Your task to perform on an android device: Play some music on YouTube Image 0: 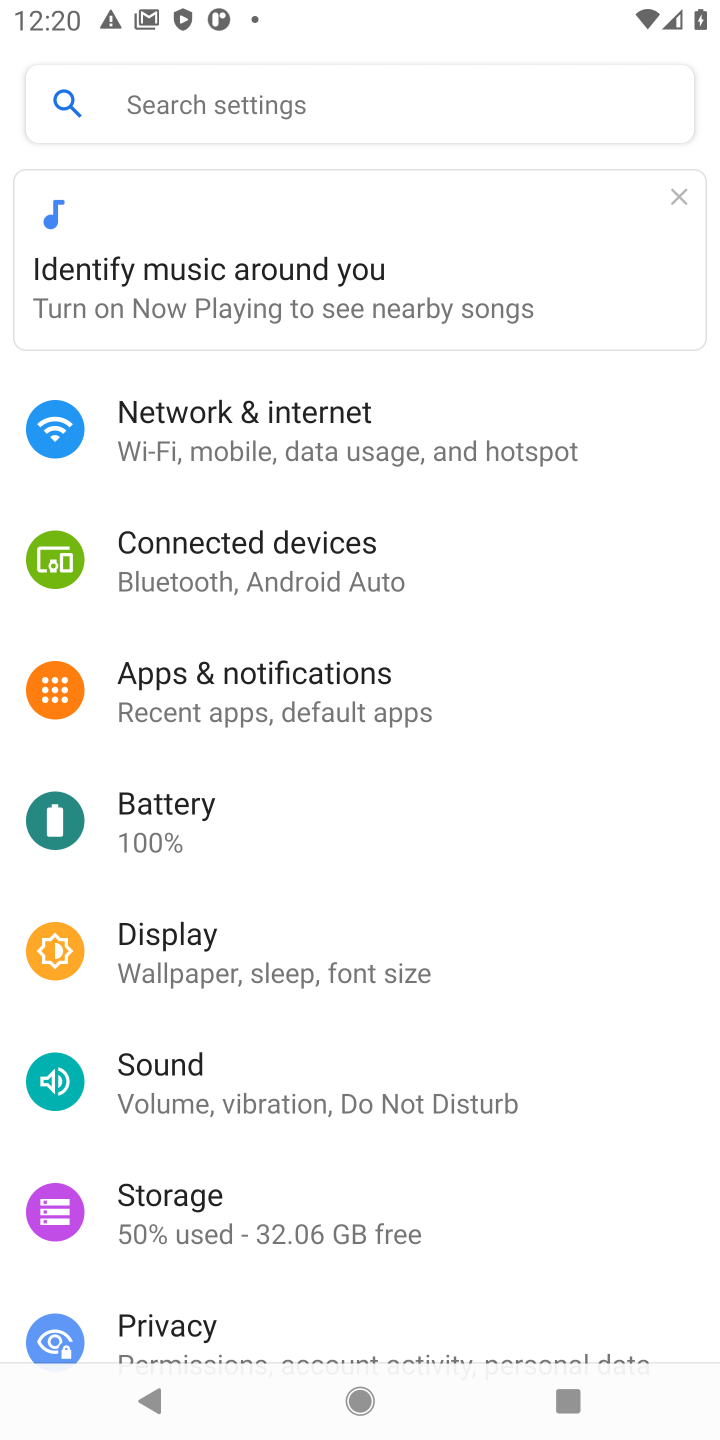
Step 0: press home button
Your task to perform on an android device: Play some music on YouTube Image 1: 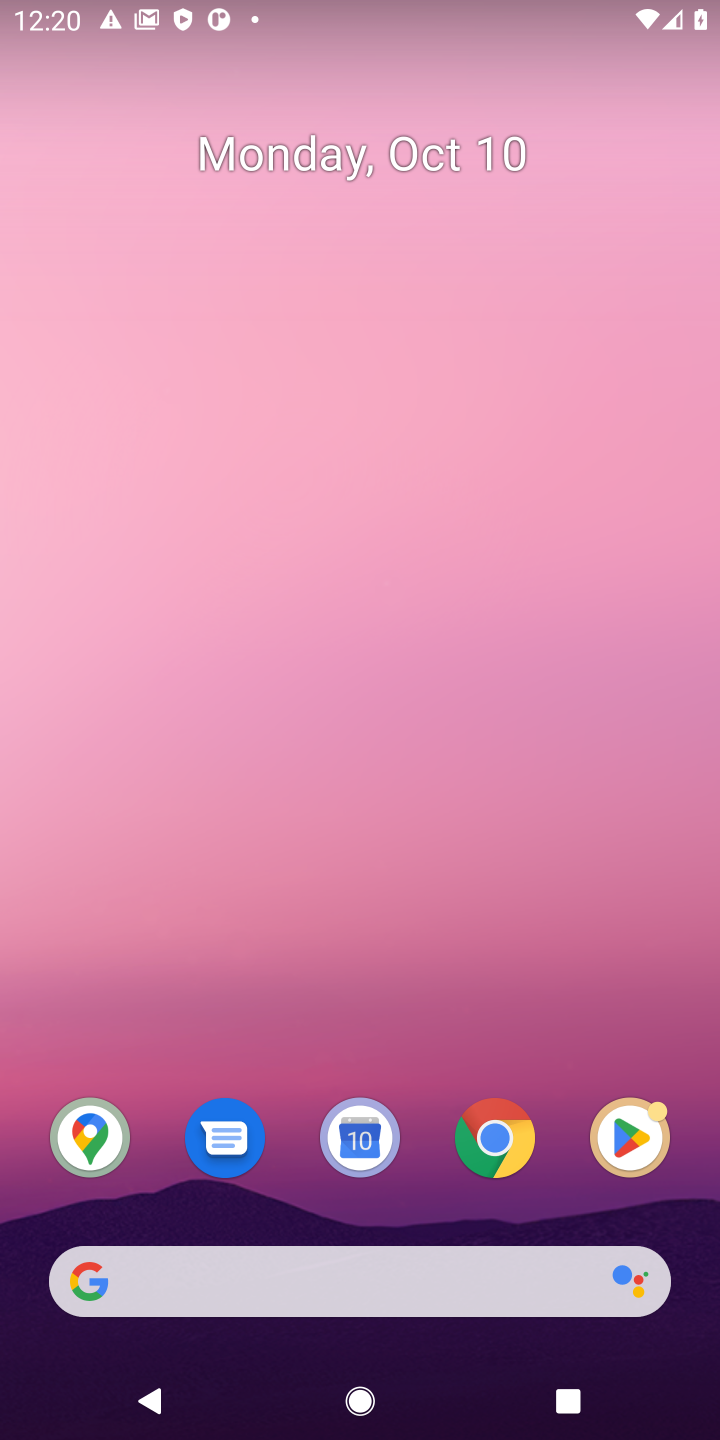
Step 1: drag from (364, 1271) to (333, 295)
Your task to perform on an android device: Play some music on YouTube Image 2: 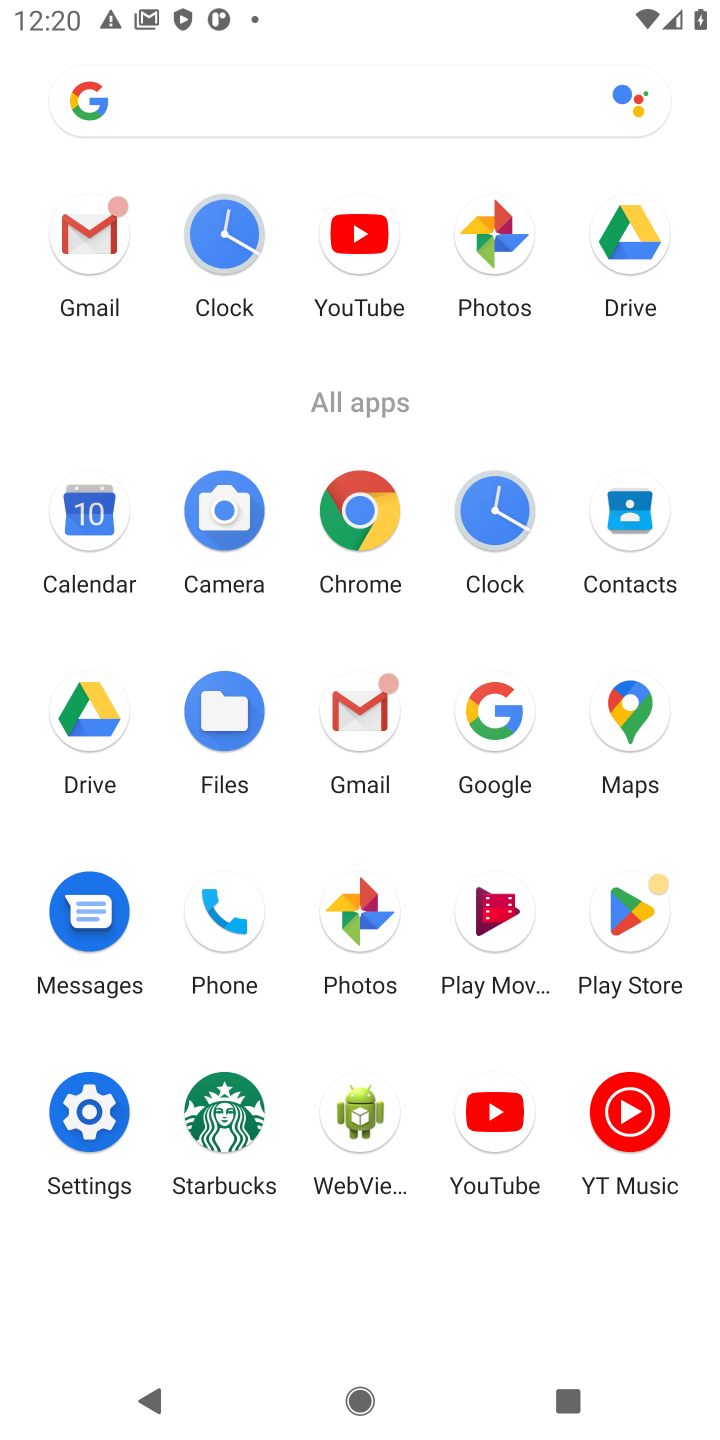
Step 2: click (503, 1131)
Your task to perform on an android device: Play some music on YouTube Image 3: 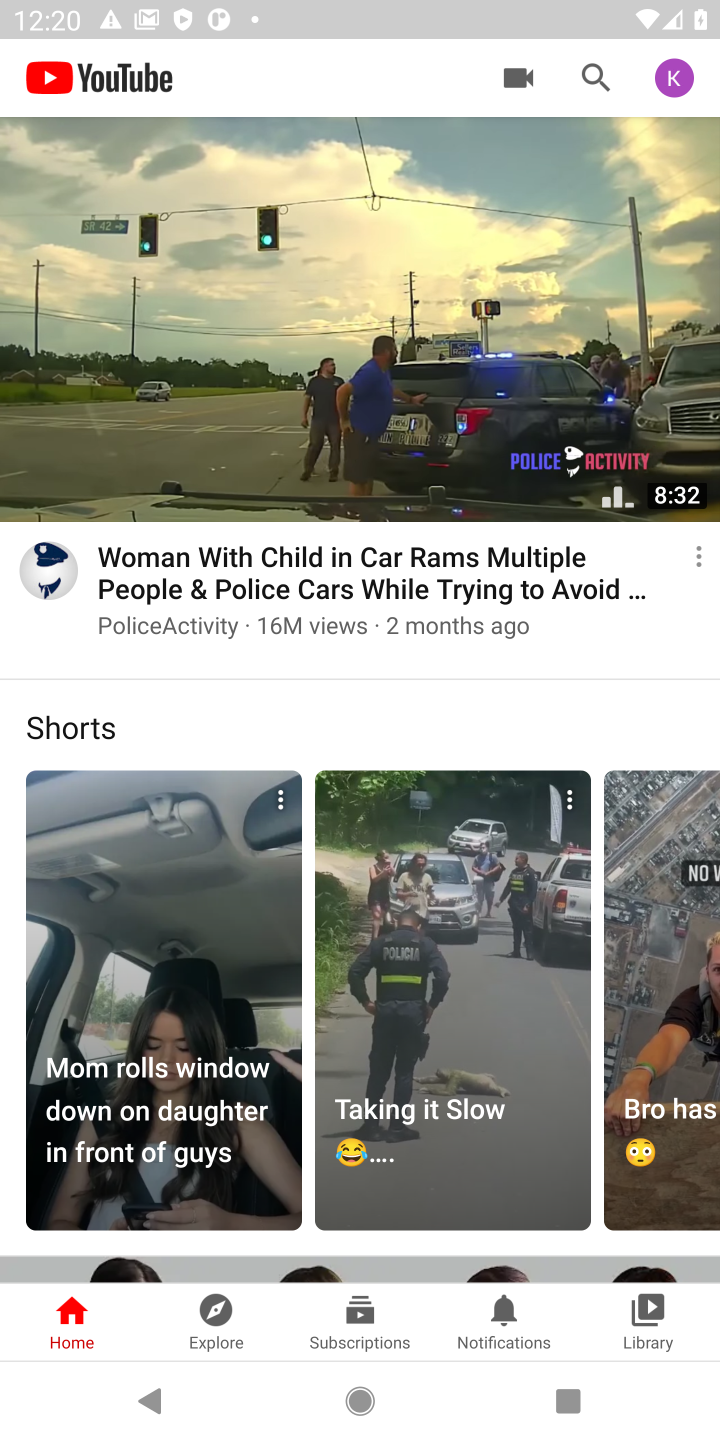
Step 3: click (602, 61)
Your task to perform on an android device: Play some music on YouTube Image 4: 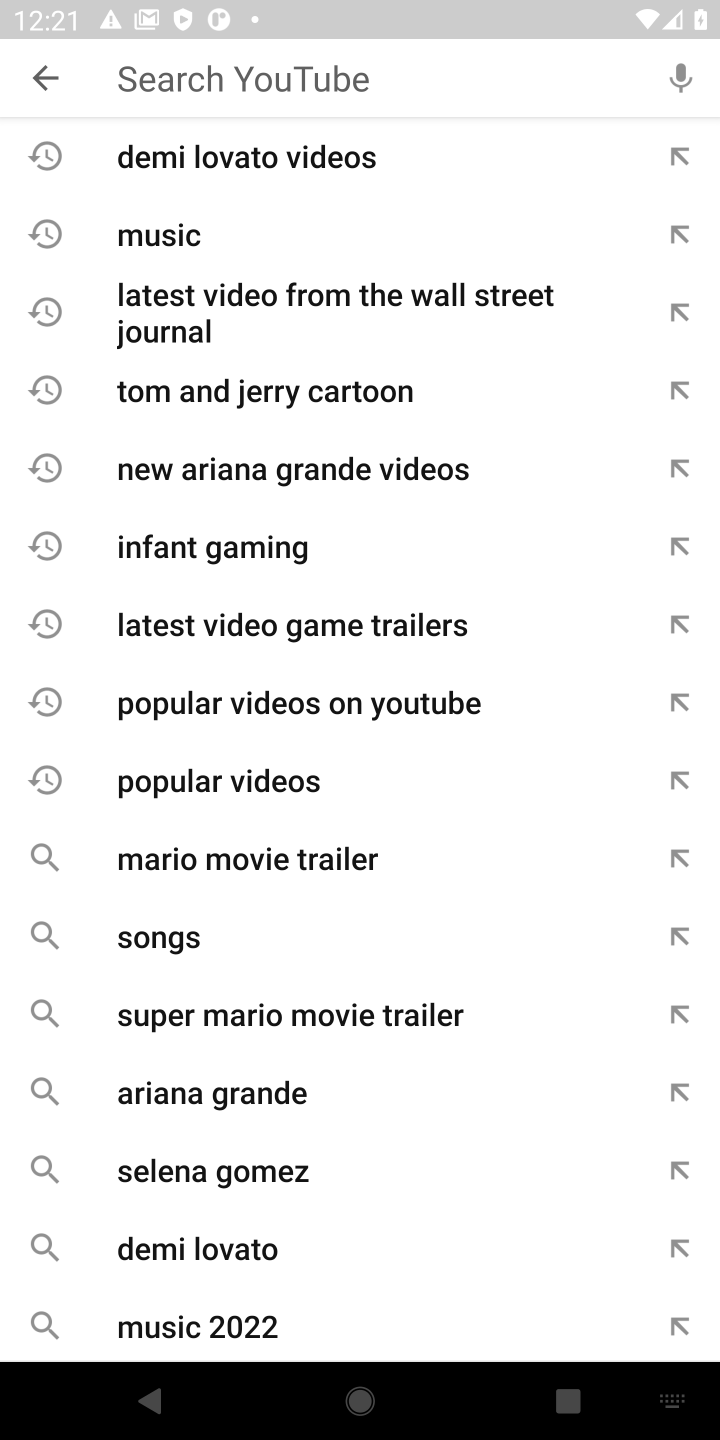
Step 4: type "music"
Your task to perform on an android device: Play some music on YouTube Image 5: 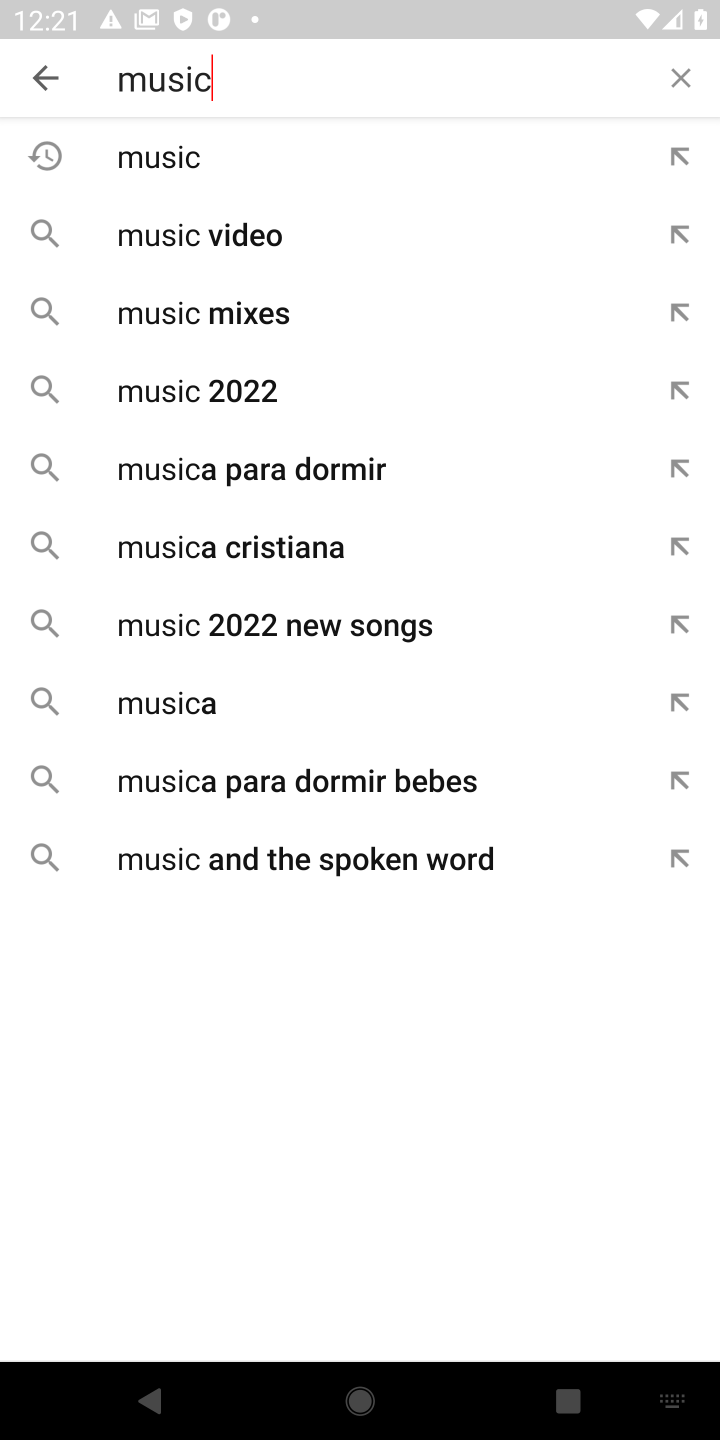
Step 5: click (508, 166)
Your task to perform on an android device: Play some music on YouTube Image 6: 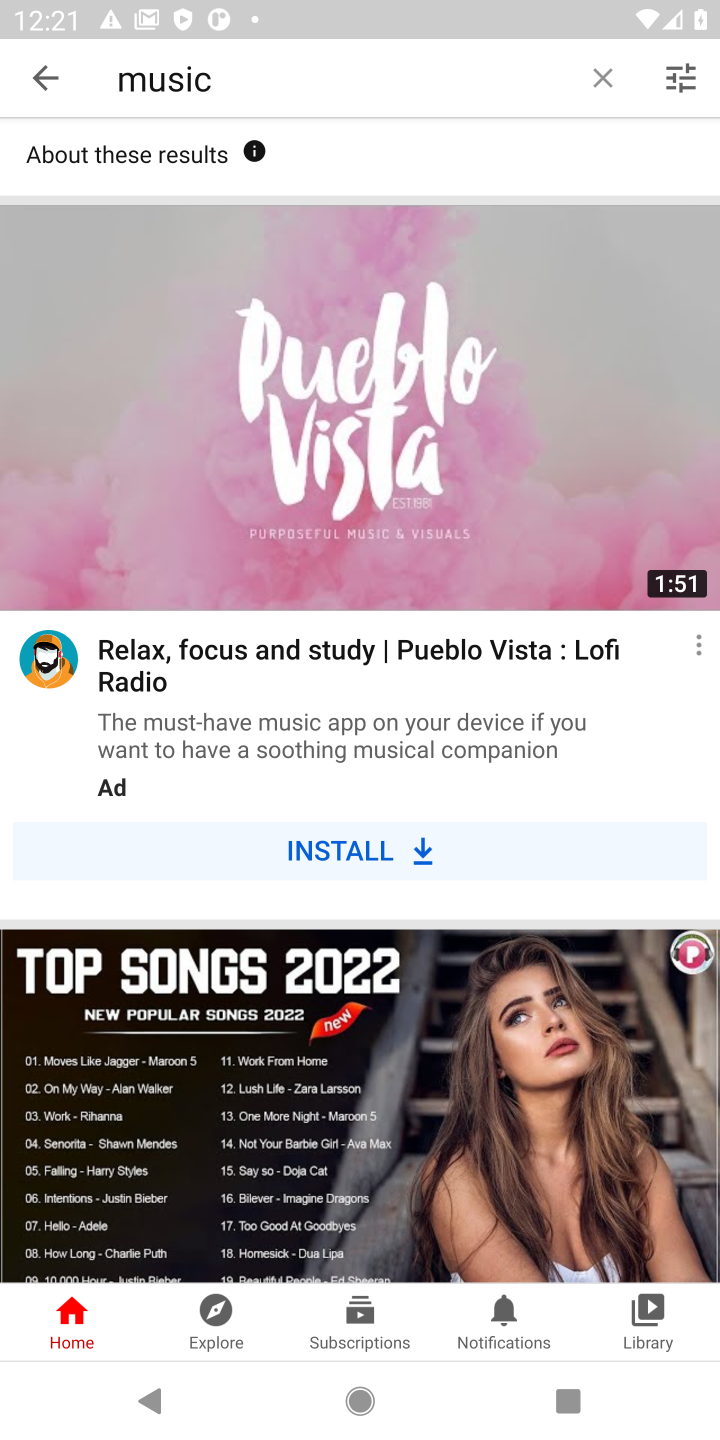
Step 6: click (410, 1090)
Your task to perform on an android device: Play some music on YouTube Image 7: 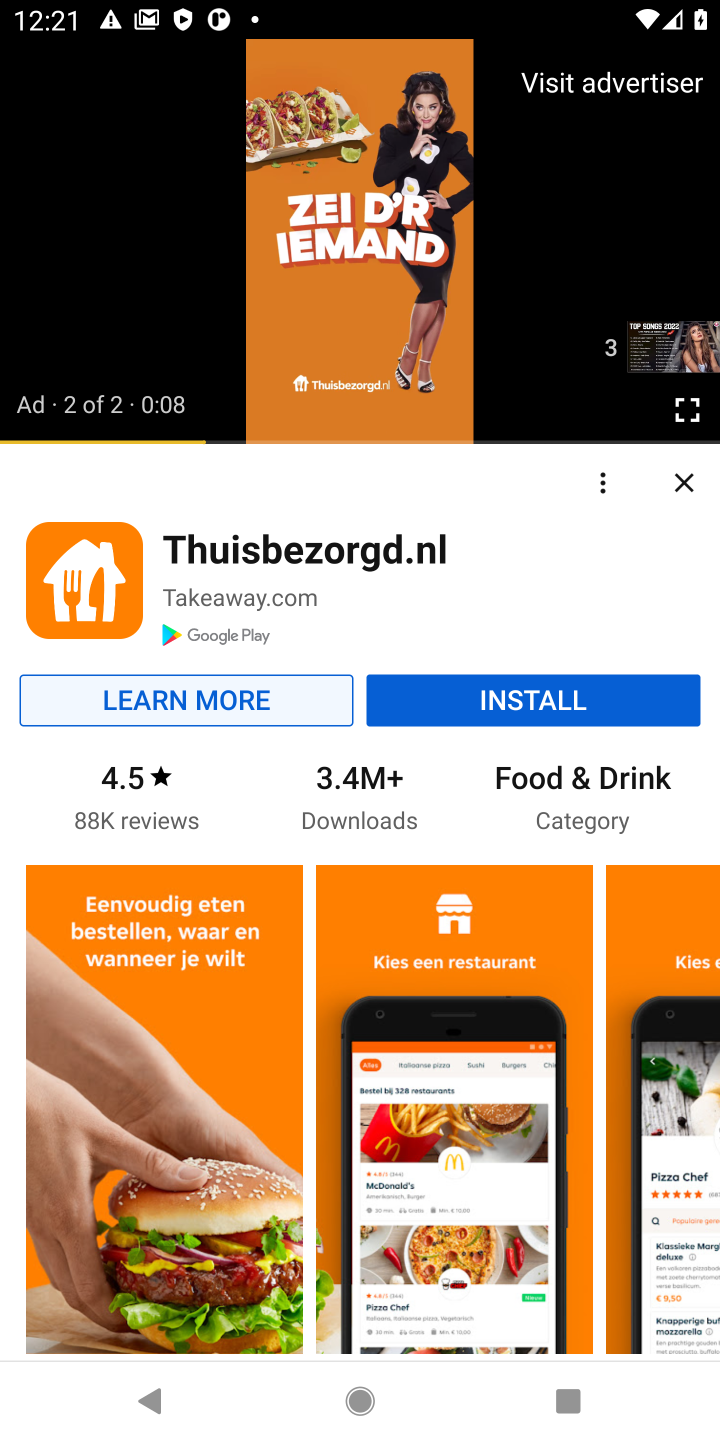
Step 7: click (674, 487)
Your task to perform on an android device: Play some music on YouTube Image 8: 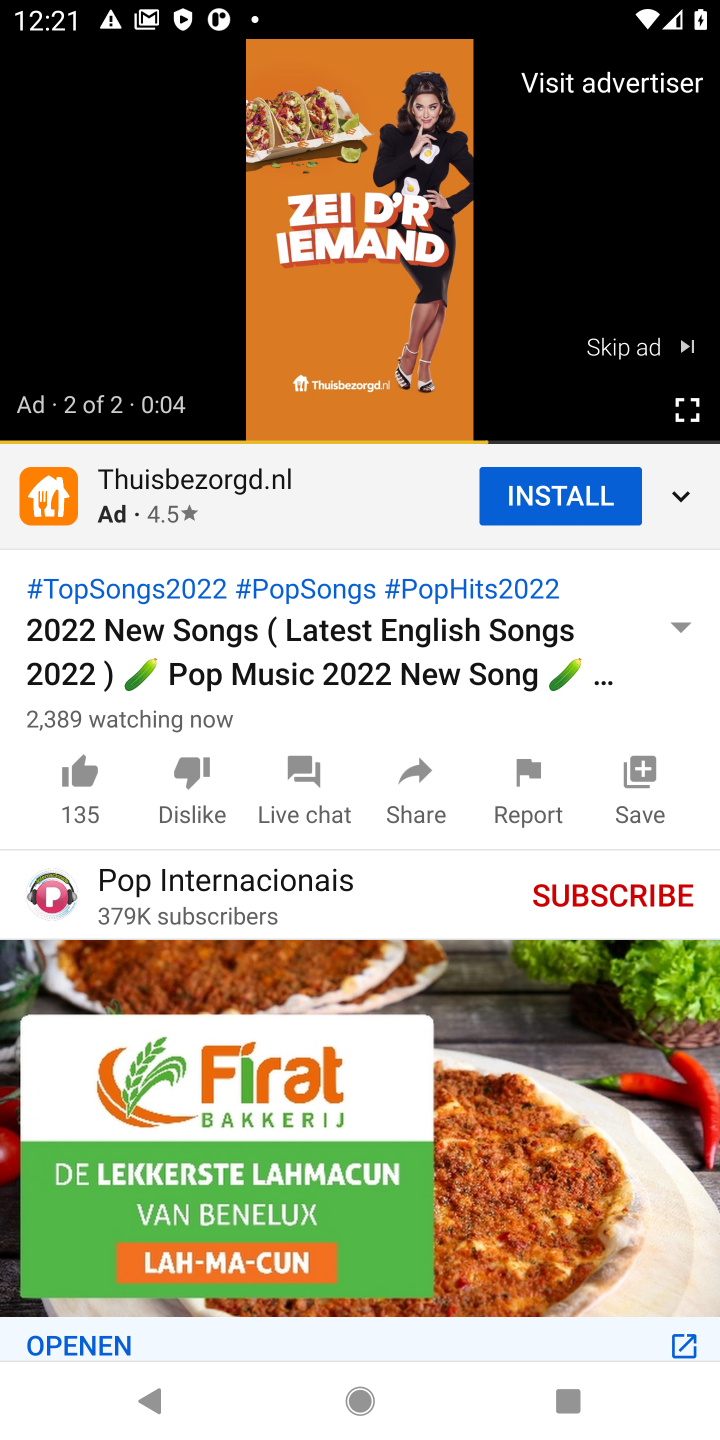
Step 8: click (612, 339)
Your task to perform on an android device: Play some music on YouTube Image 9: 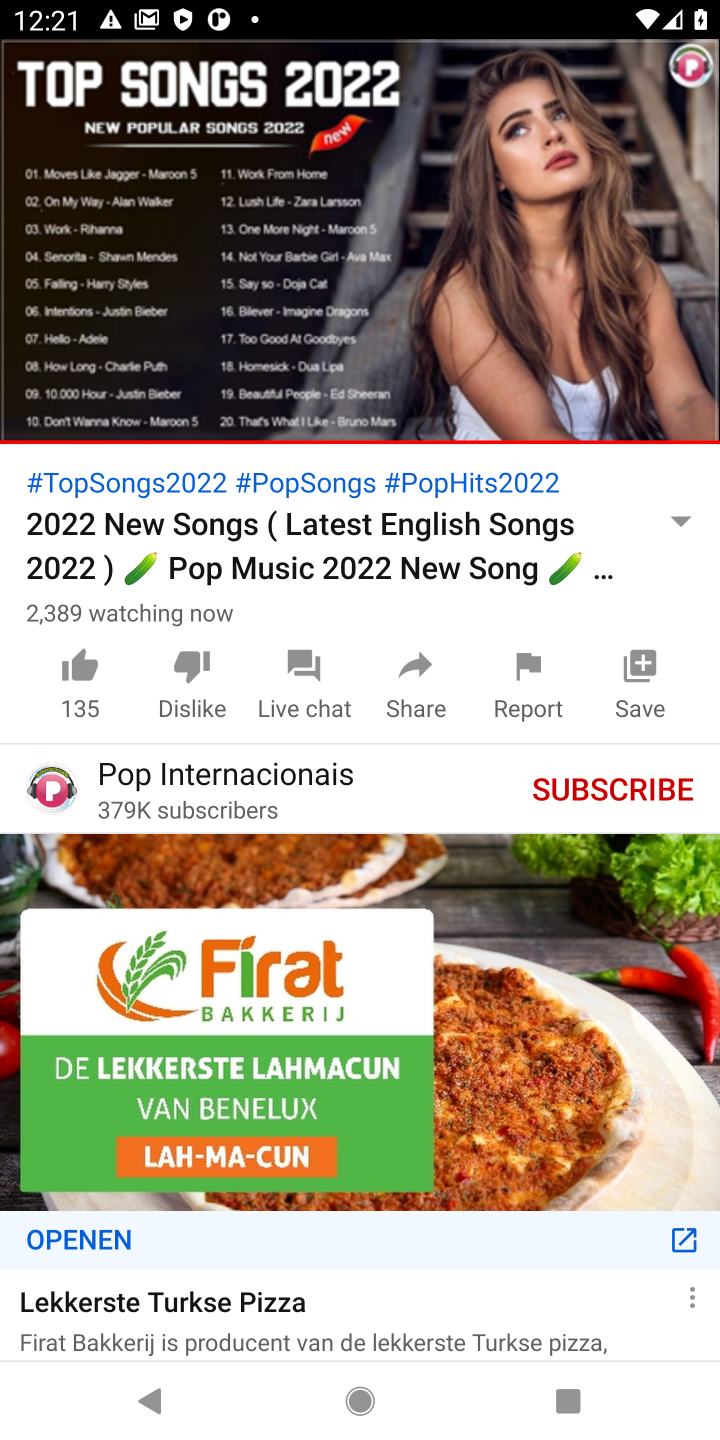
Step 9: task complete